Your task to perform on an android device: Go to battery settings Image 0: 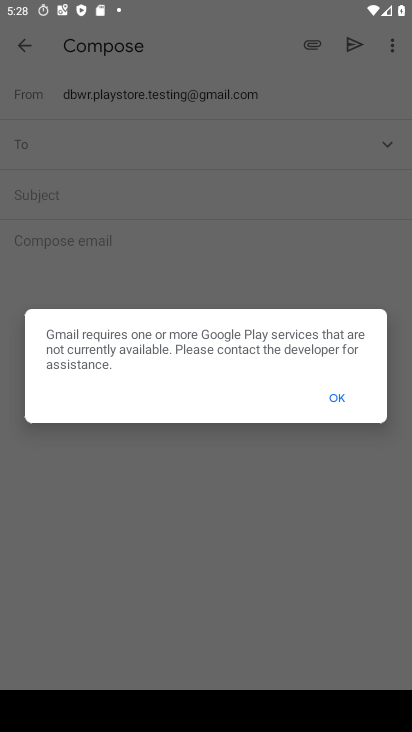
Step 0: press home button
Your task to perform on an android device: Go to battery settings Image 1: 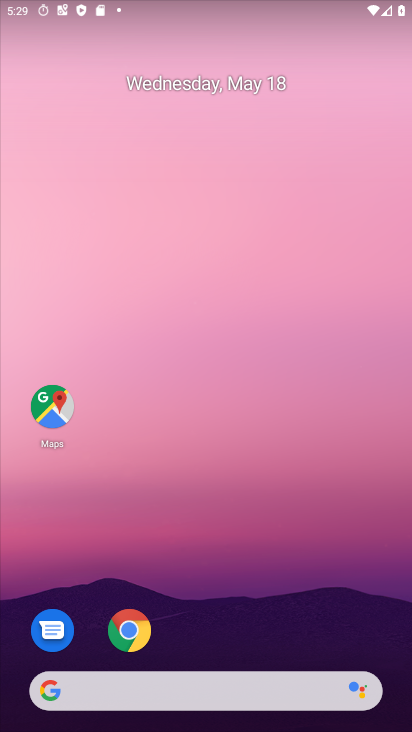
Step 1: drag from (217, 670) to (198, 311)
Your task to perform on an android device: Go to battery settings Image 2: 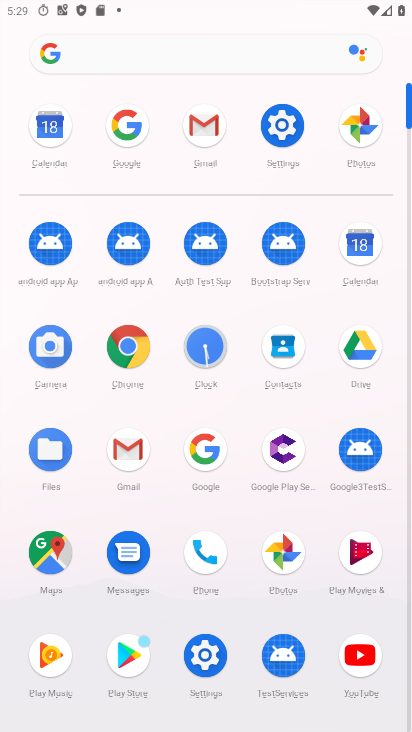
Step 2: click (285, 141)
Your task to perform on an android device: Go to battery settings Image 3: 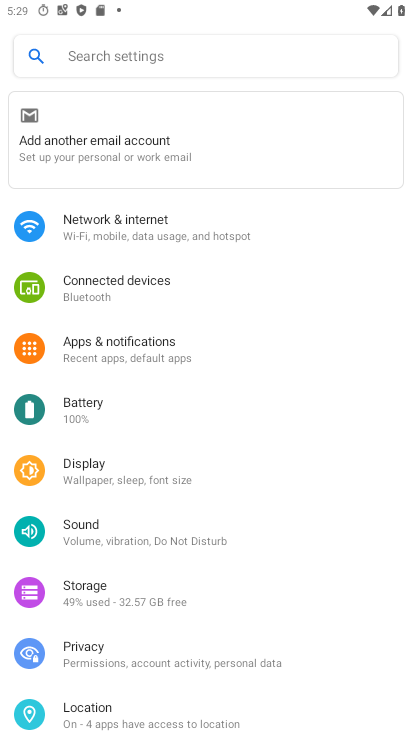
Step 3: click (87, 403)
Your task to perform on an android device: Go to battery settings Image 4: 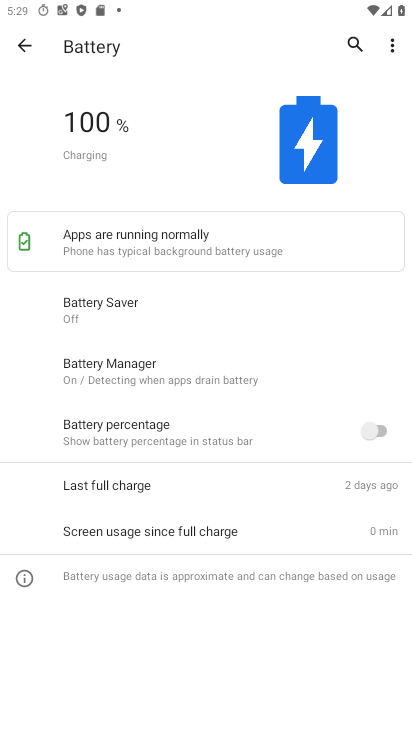
Step 4: task complete